Your task to perform on an android device: open chrome privacy settings Image 0: 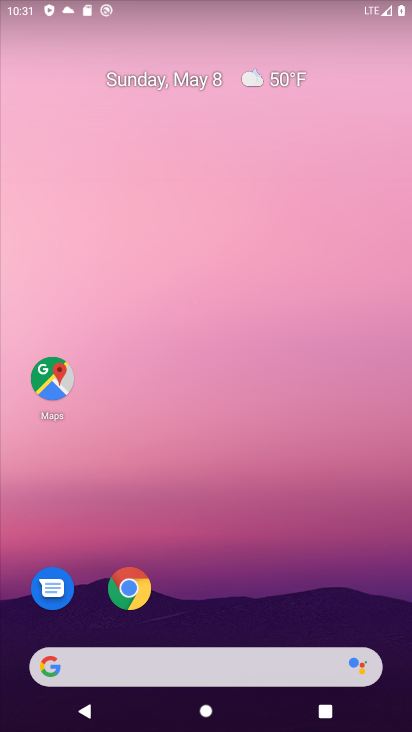
Step 0: drag from (259, 586) to (240, 161)
Your task to perform on an android device: open chrome privacy settings Image 1: 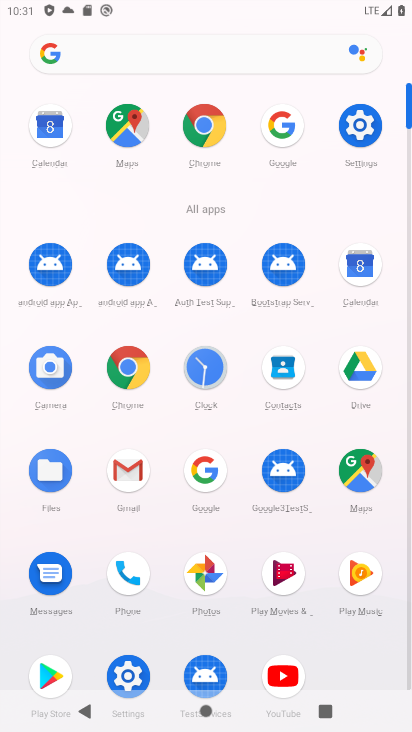
Step 1: click (205, 132)
Your task to perform on an android device: open chrome privacy settings Image 2: 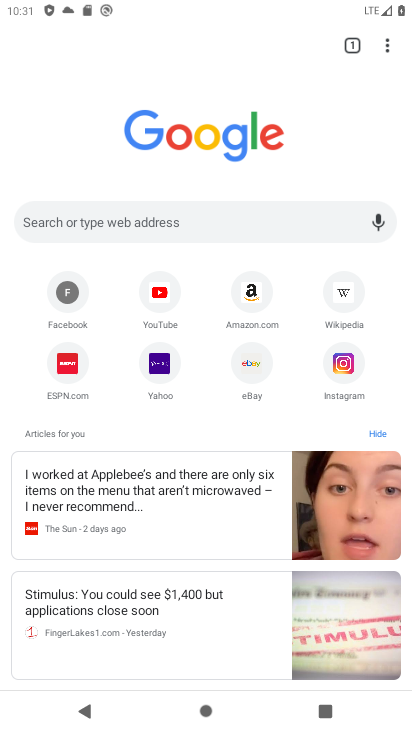
Step 2: click (390, 47)
Your task to perform on an android device: open chrome privacy settings Image 3: 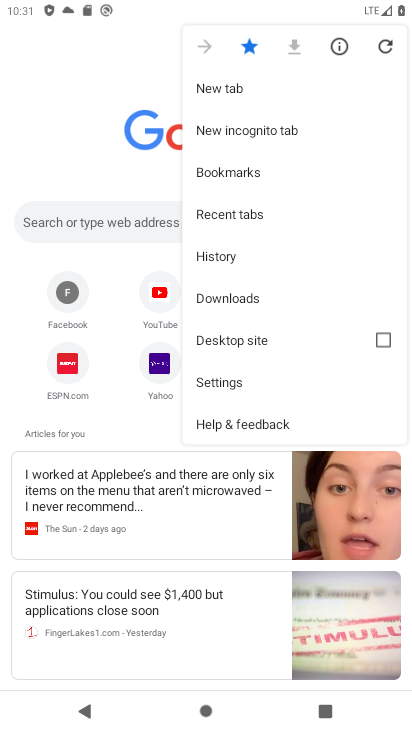
Step 3: click (268, 381)
Your task to perform on an android device: open chrome privacy settings Image 4: 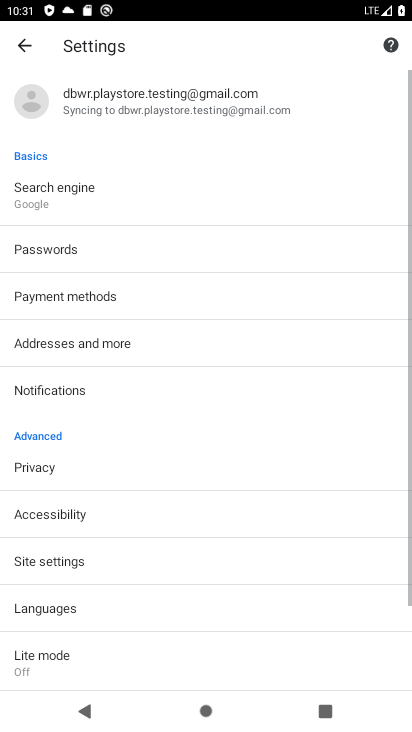
Step 4: click (78, 443)
Your task to perform on an android device: open chrome privacy settings Image 5: 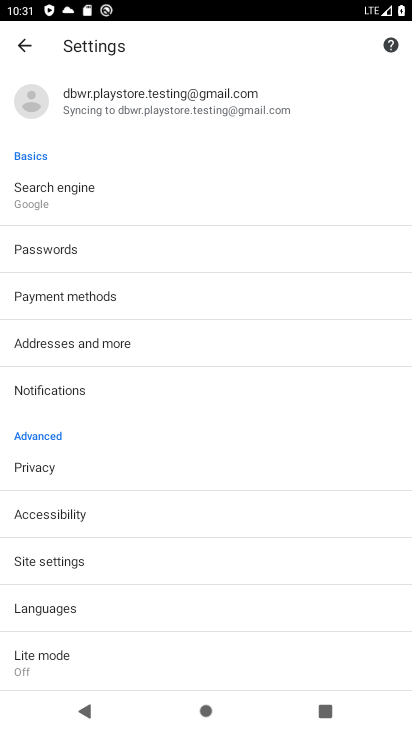
Step 5: click (102, 474)
Your task to perform on an android device: open chrome privacy settings Image 6: 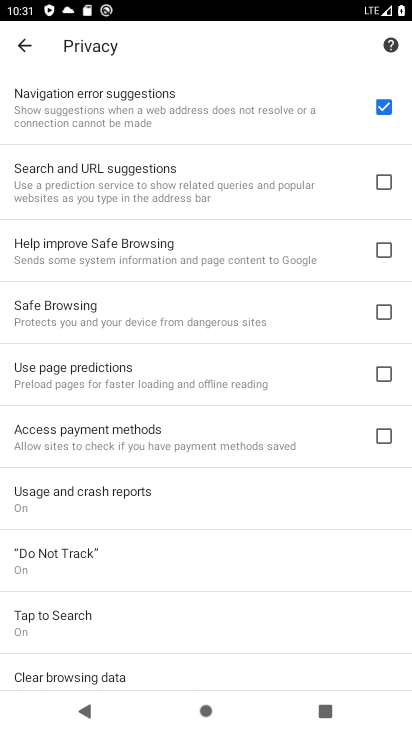
Step 6: task complete